Your task to perform on an android device: Open Amazon Image 0: 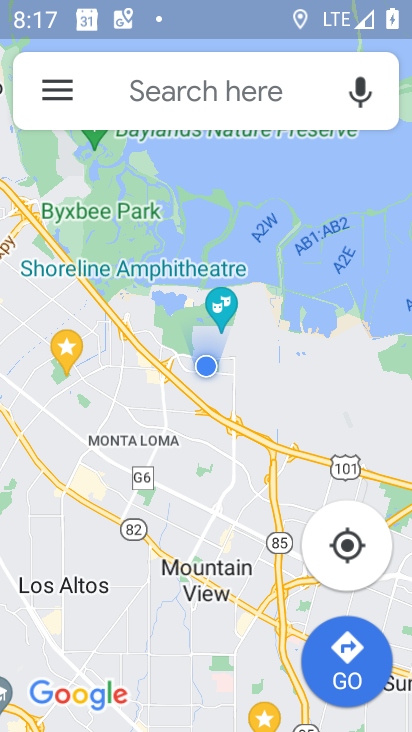
Step 0: press home button
Your task to perform on an android device: Open Amazon Image 1: 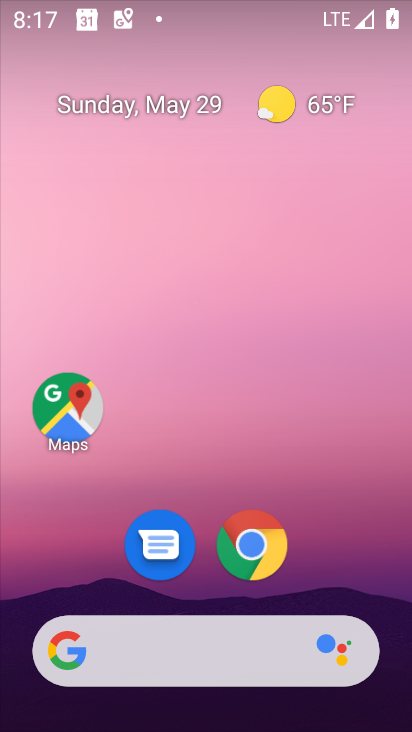
Step 1: click (252, 540)
Your task to perform on an android device: Open Amazon Image 2: 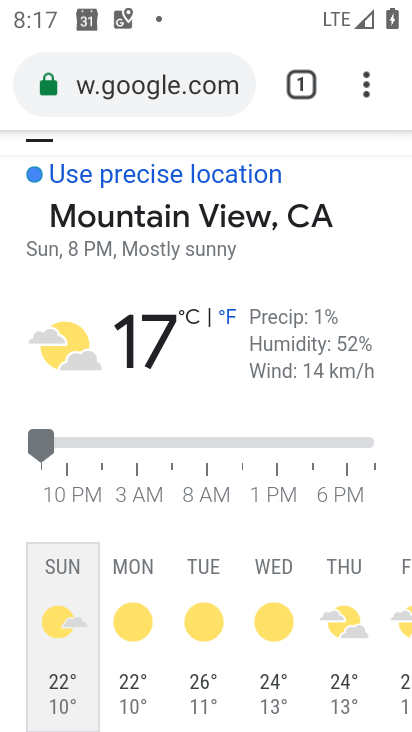
Step 2: click (169, 89)
Your task to perform on an android device: Open Amazon Image 3: 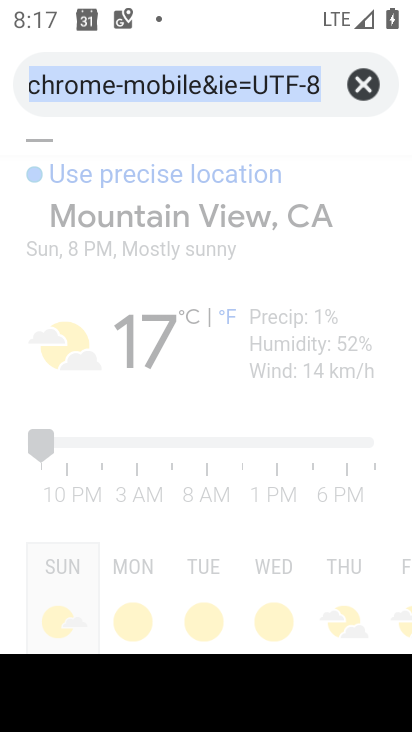
Step 3: type "Amazon"
Your task to perform on an android device: Open Amazon Image 4: 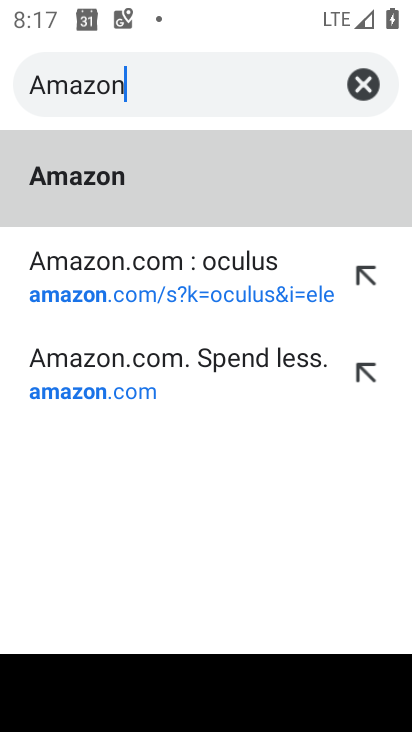
Step 4: click (256, 170)
Your task to perform on an android device: Open Amazon Image 5: 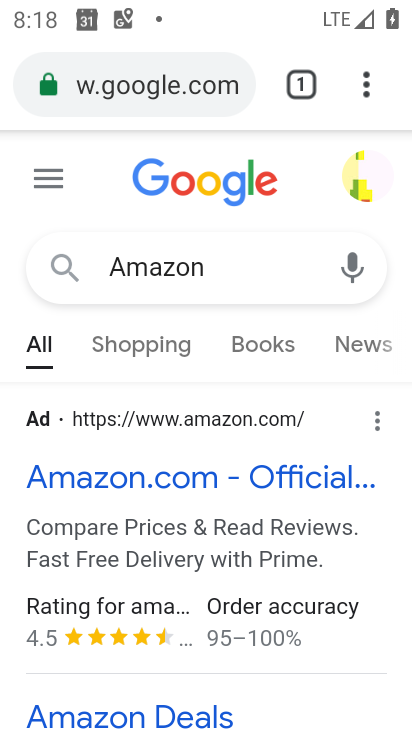
Step 5: task complete